Your task to perform on an android device: Open battery settings Image 0: 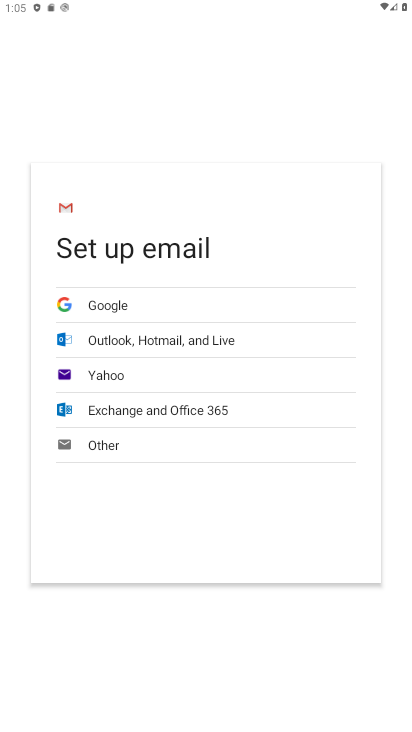
Step 0: press home button
Your task to perform on an android device: Open battery settings Image 1: 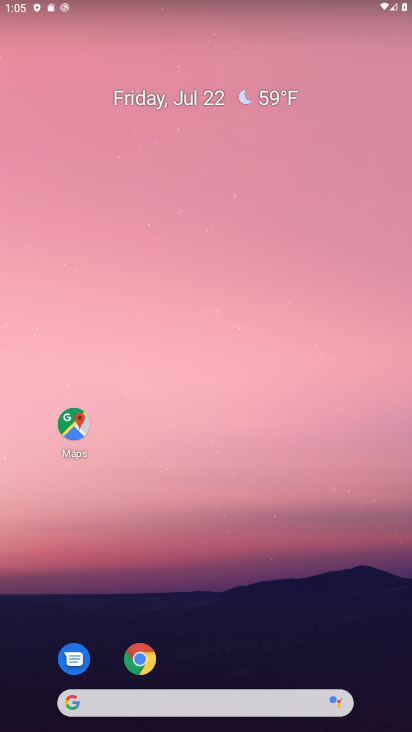
Step 1: drag from (226, 619) to (209, 243)
Your task to perform on an android device: Open battery settings Image 2: 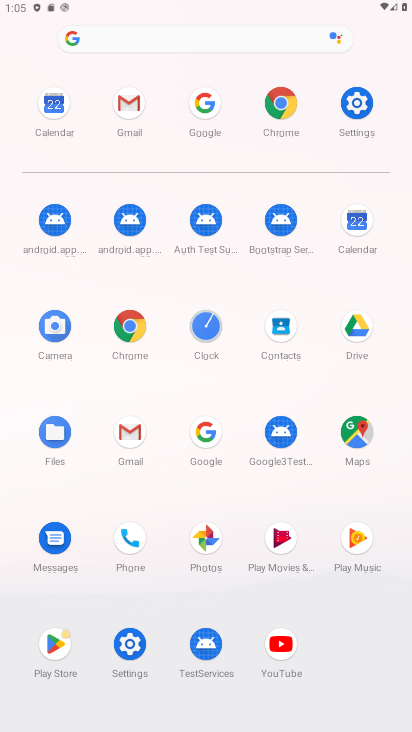
Step 2: click (343, 117)
Your task to perform on an android device: Open battery settings Image 3: 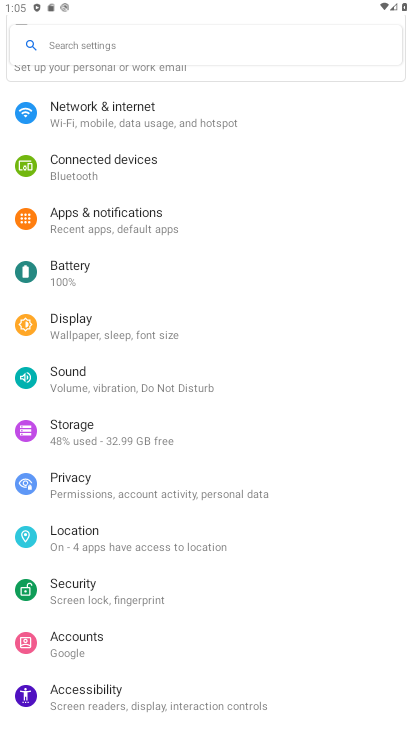
Step 3: click (94, 274)
Your task to perform on an android device: Open battery settings Image 4: 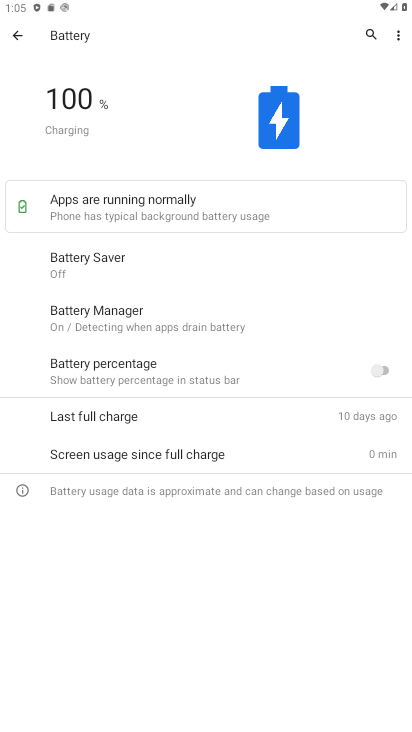
Step 4: task complete